Your task to perform on an android device: open a new tab in the chrome app Image 0: 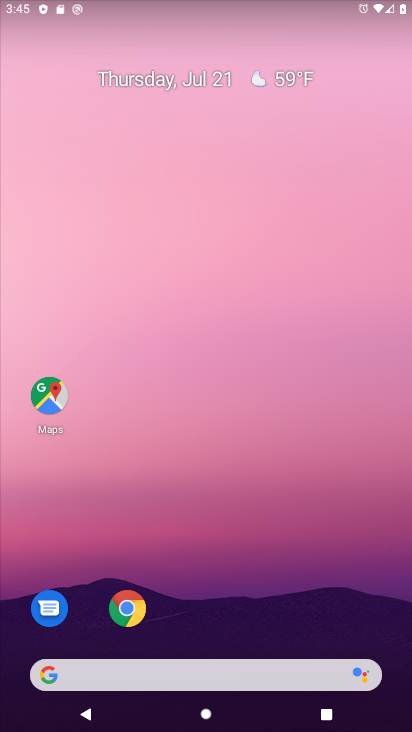
Step 0: drag from (239, 624) to (307, 38)
Your task to perform on an android device: open a new tab in the chrome app Image 1: 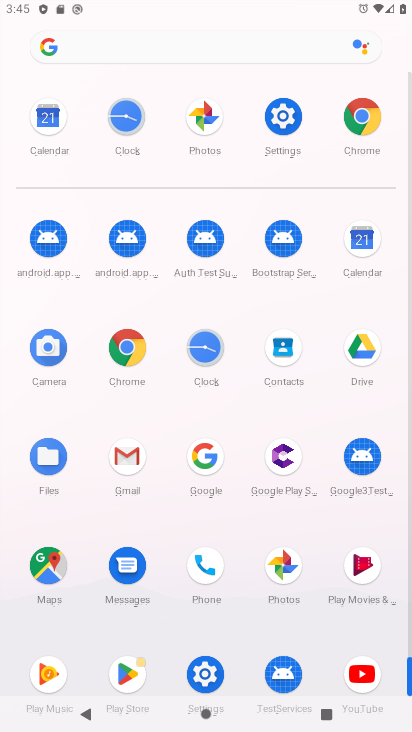
Step 1: click (133, 337)
Your task to perform on an android device: open a new tab in the chrome app Image 2: 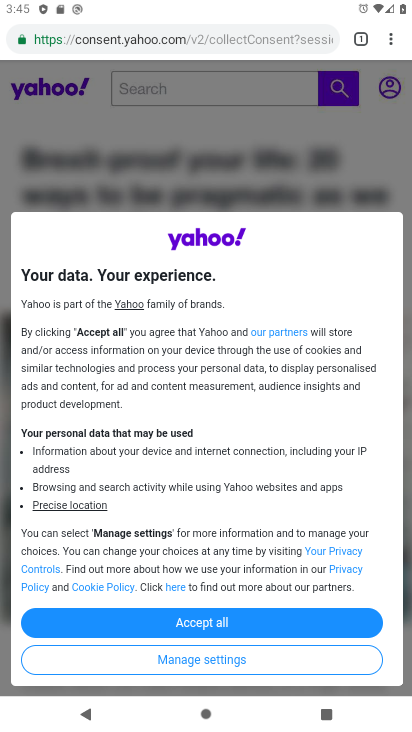
Step 2: task complete